Your task to perform on an android device: check the backup settings in the google photos Image 0: 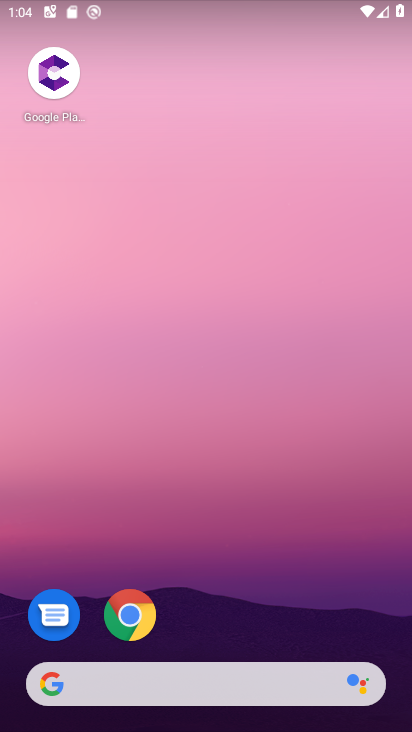
Step 0: drag from (203, 547) to (240, 1)
Your task to perform on an android device: check the backup settings in the google photos Image 1: 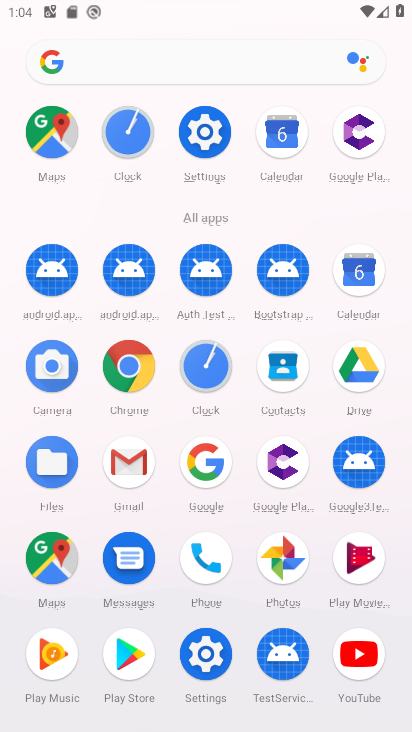
Step 1: click (292, 553)
Your task to perform on an android device: check the backup settings in the google photos Image 2: 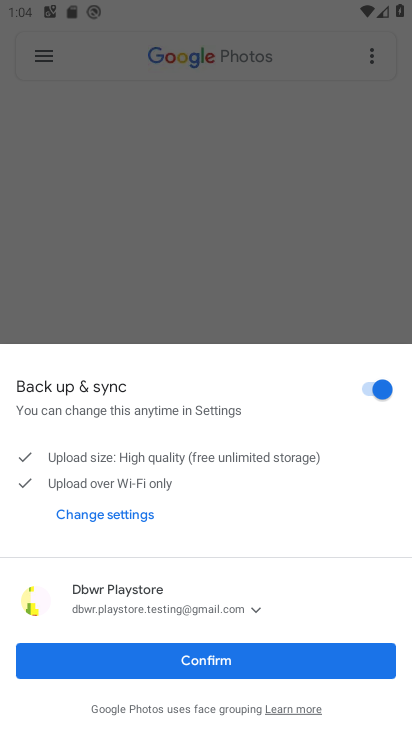
Step 2: click (188, 658)
Your task to perform on an android device: check the backup settings in the google photos Image 3: 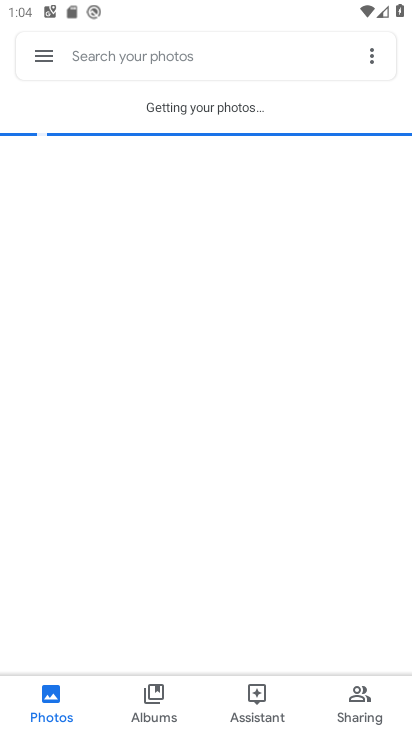
Step 3: click (41, 63)
Your task to perform on an android device: check the backup settings in the google photos Image 4: 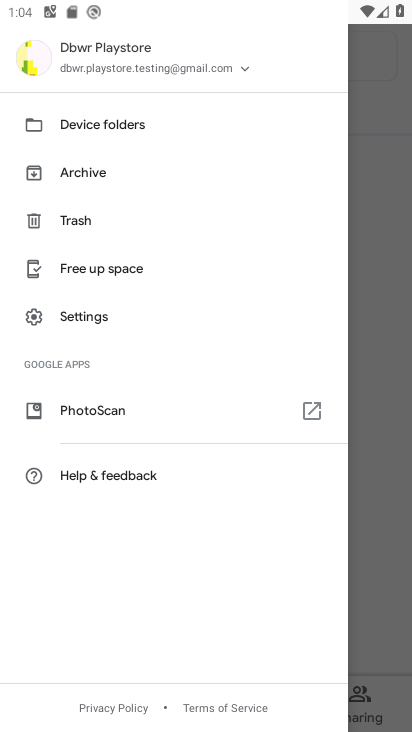
Step 4: click (101, 319)
Your task to perform on an android device: check the backup settings in the google photos Image 5: 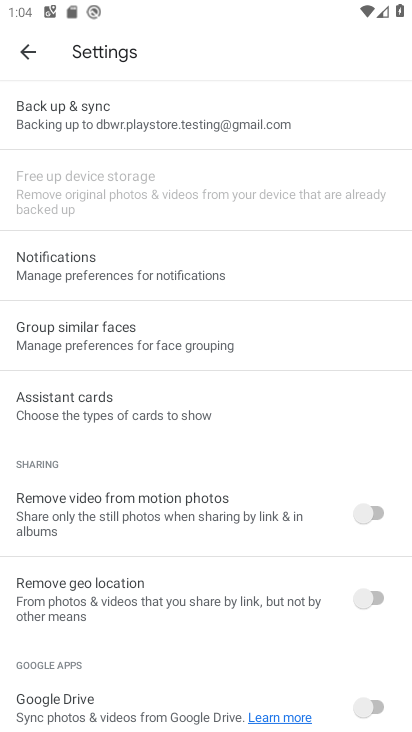
Step 5: click (66, 124)
Your task to perform on an android device: check the backup settings in the google photos Image 6: 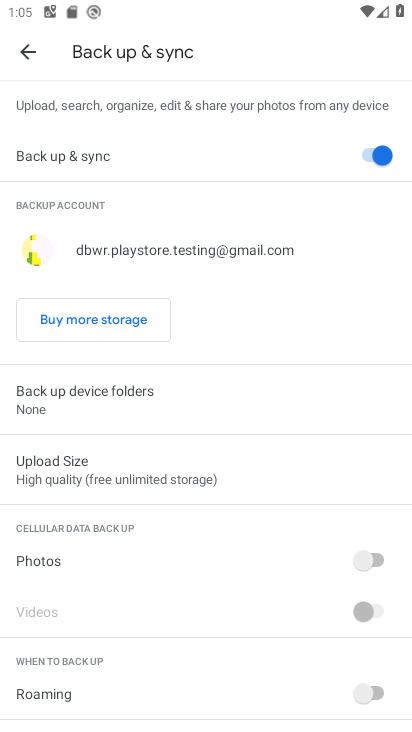
Step 6: task complete